Your task to perform on an android device: Search for a small bookcase on Ikea.com Image 0: 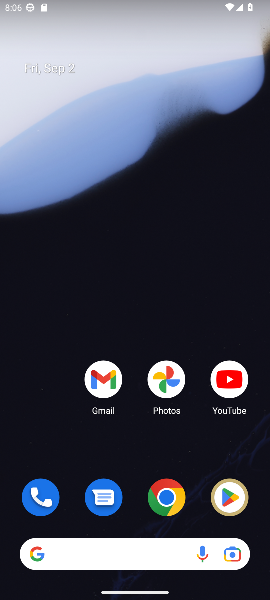
Step 0: drag from (129, 508) to (127, 228)
Your task to perform on an android device: Search for a small bookcase on Ikea.com Image 1: 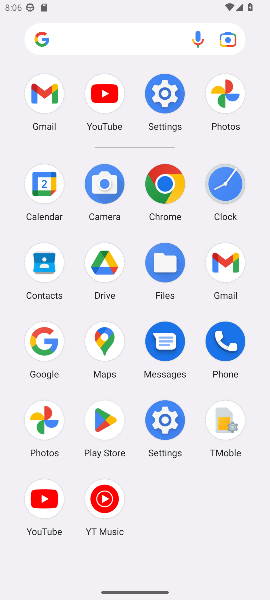
Step 1: click (35, 352)
Your task to perform on an android device: Search for a small bookcase on Ikea.com Image 2: 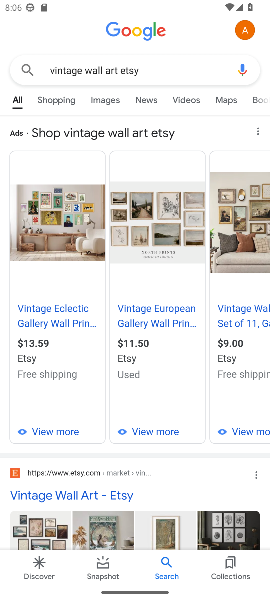
Step 2: click (147, 65)
Your task to perform on an android device: Search for a small bookcase on Ikea.com Image 3: 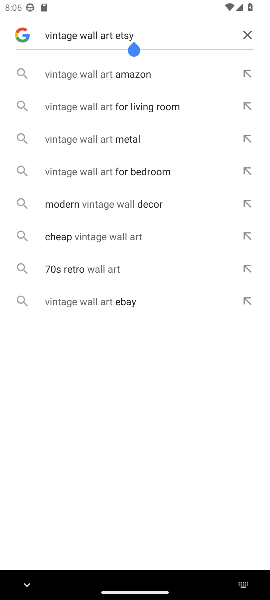
Step 3: click (248, 32)
Your task to perform on an android device: Search for a small bookcase on Ikea.com Image 4: 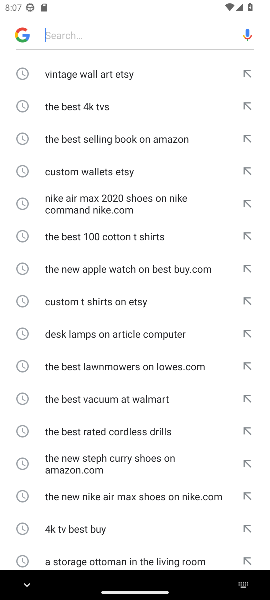
Step 4: type " a small bookcase on Ikea.com"
Your task to perform on an android device: Search for a small bookcase on Ikea.com Image 5: 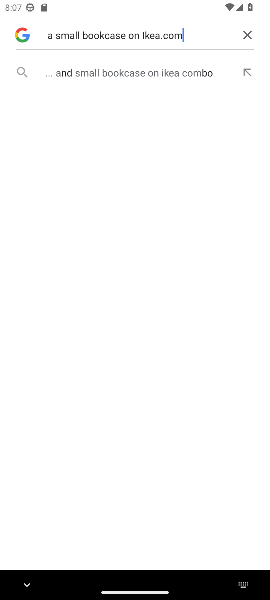
Step 5: click (166, 73)
Your task to perform on an android device: Search for a small bookcase on Ikea.com Image 6: 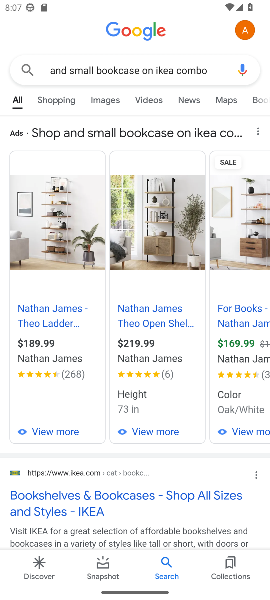
Step 6: click (93, 490)
Your task to perform on an android device: Search for a small bookcase on Ikea.com Image 7: 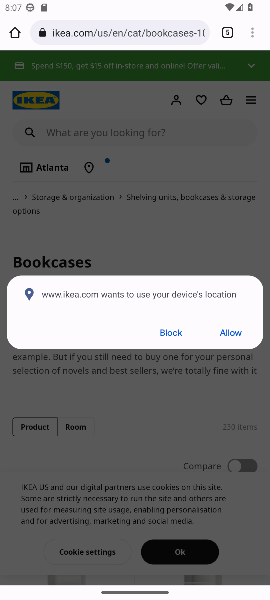
Step 7: click (221, 337)
Your task to perform on an android device: Search for a small bookcase on Ikea.com Image 8: 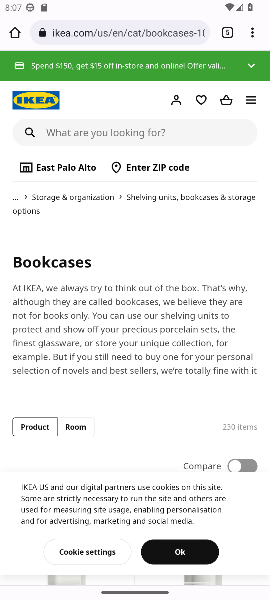
Step 8: task complete